Your task to perform on an android device: Show me the alarms in the clock app Image 0: 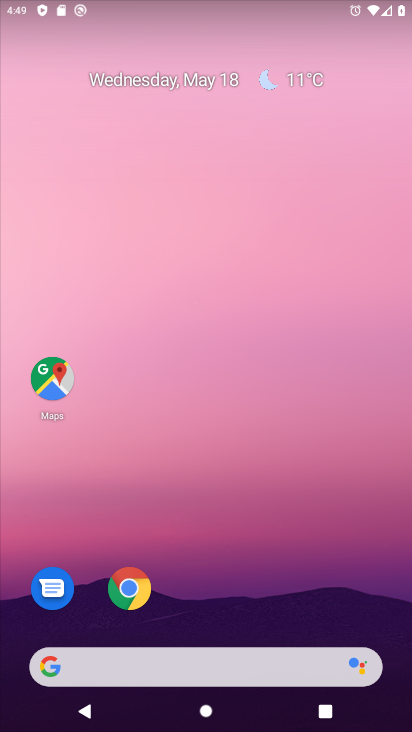
Step 0: drag from (275, 547) to (294, 29)
Your task to perform on an android device: Show me the alarms in the clock app Image 1: 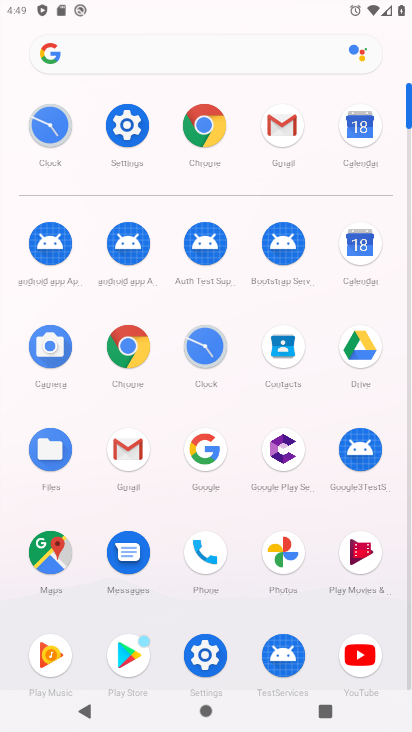
Step 1: click (58, 121)
Your task to perform on an android device: Show me the alarms in the clock app Image 2: 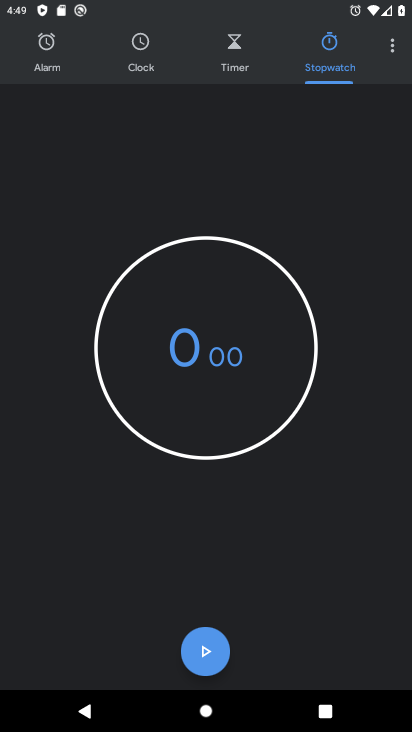
Step 2: drag from (394, 54) to (287, 97)
Your task to perform on an android device: Show me the alarms in the clock app Image 3: 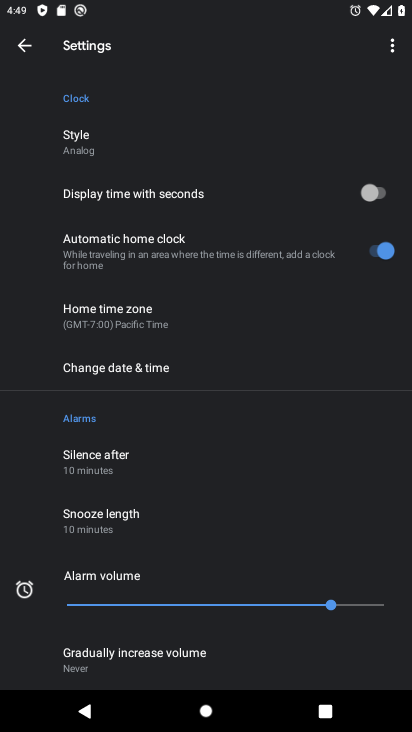
Step 3: drag from (166, 162) to (186, 490)
Your task to perform on an android device: Show me the alarms in the clock app Image 4: 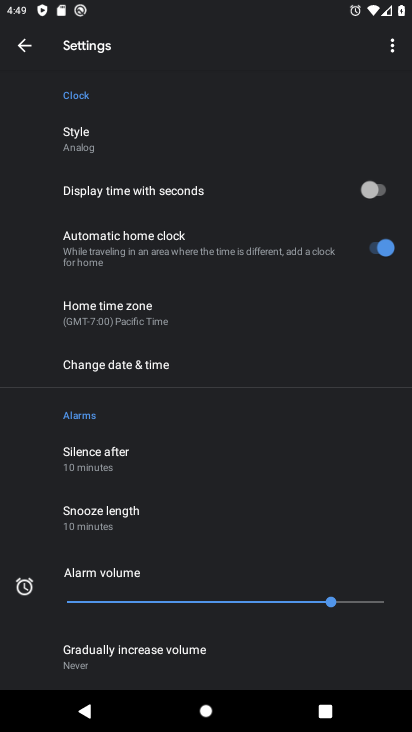
Step 4: click (21, 53)
Your task to perform on an android device: Show me the alarms in the clock app Image 5: 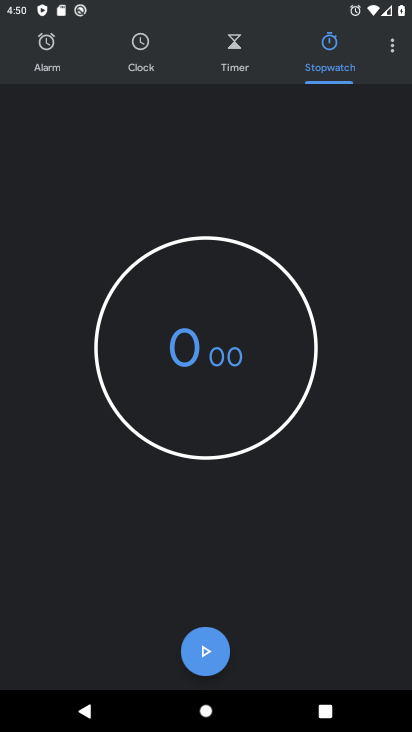
Step 5: click (51, 44)
Your task to perform on an android device: Show me the alarms in the clock app Image 6: 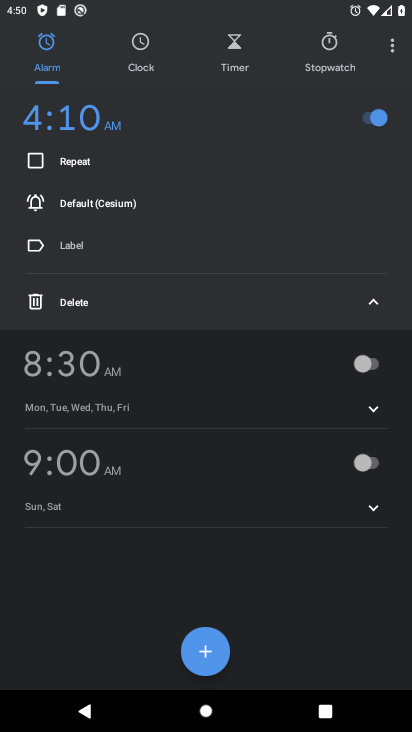
Step 6: task complete